Your task to perform on an android device: Open my contact list Image 0: 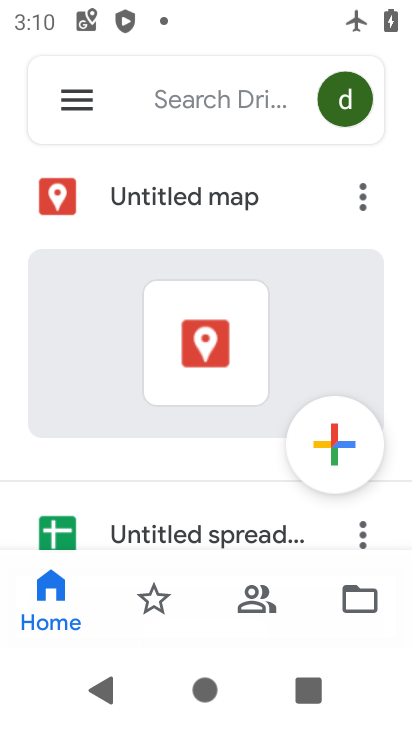
Step 0: press home button
Your task to perform on an android device: Open my contact list Image 1: 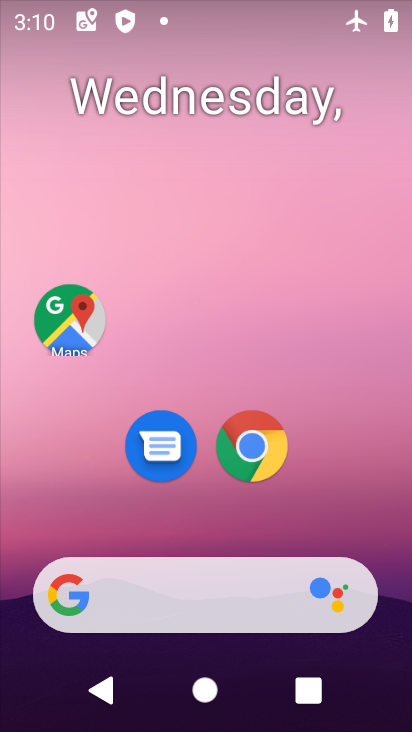
Step 1: drag from (226, 501) to (246, 54)
Your task to perform on an android device: Open my contact list Image 2: 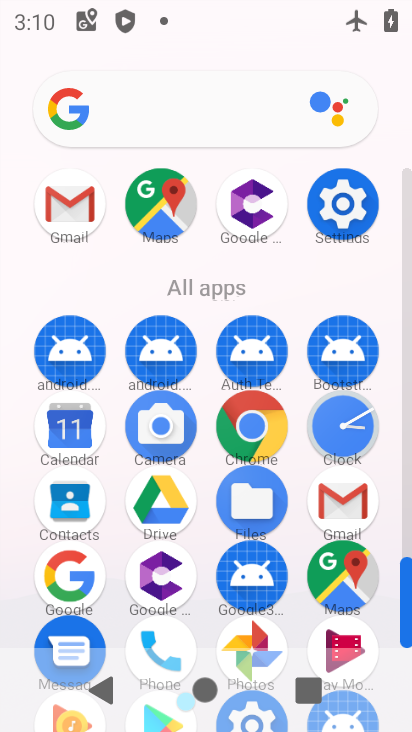
Step 2: click (74, 504)
Your task to perform on an android device: Open my contact list Image 3: 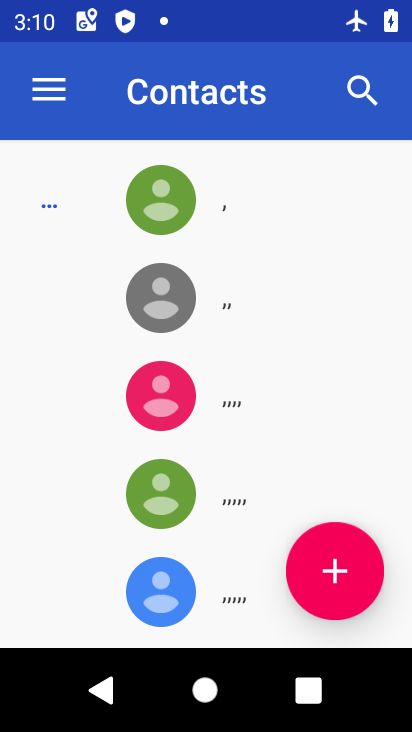
Step 3: click (340, 577)
Your task to perform on an android device: Open my contact list Image 4: 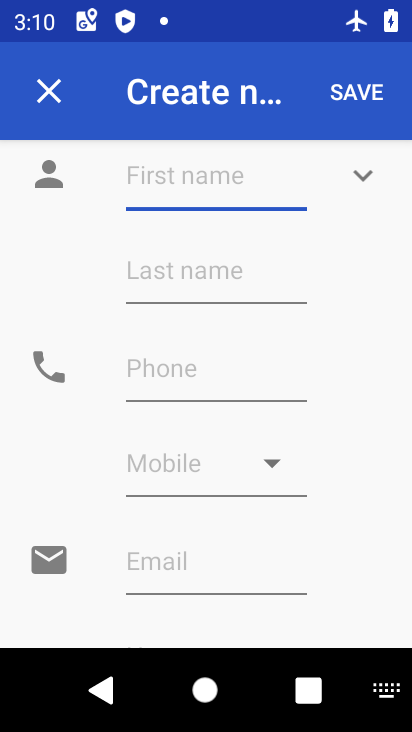
Step 4: task complete